Your task to perform on an android device: move an email to a new category in the gmail app Image 0: 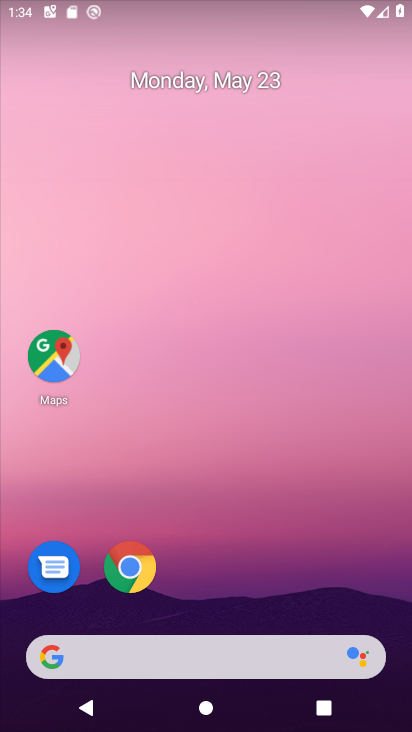
Step 0: drag from (238, 593) to (270, 240)
Your task to perform on an android device: move an email to a new category in the gmail app Image 1: 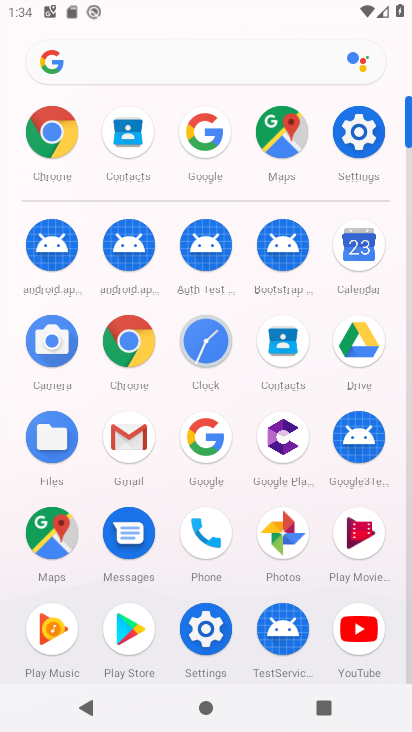
Step 1: click (142, 452)
Your task to perform on an android device: move an email to a new category in the gmail app Image 2: 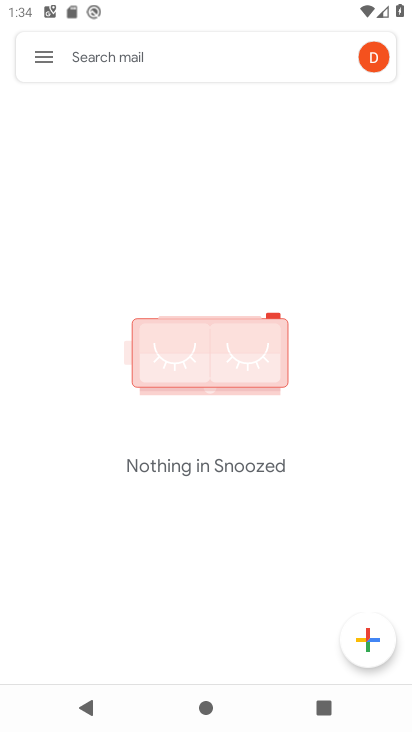
Step 2: click (47, 59)
Your task to perform on an android device: move an email to a new category in the gmail app Image 3: 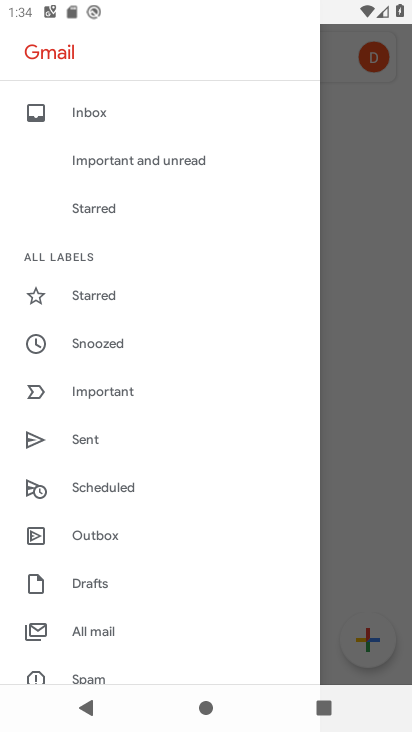
Step 3: click (75, 635)
Your task to perform on an android device: move an email to a new category in the gmail app Image 4: 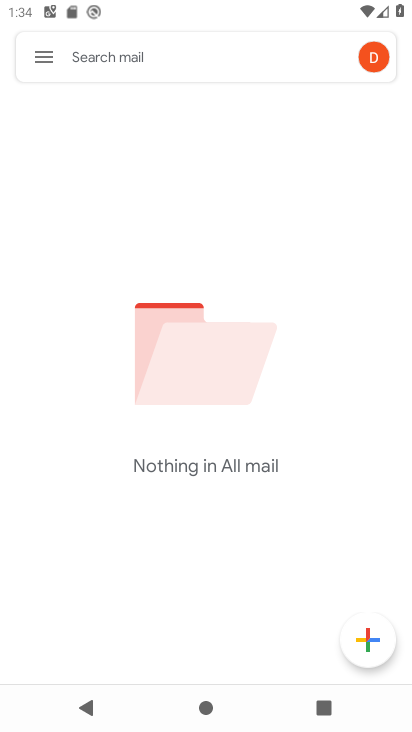
Step 4: task complete